Your task to perform on an android device: Open calendar and show me the second week of next month Image 0: 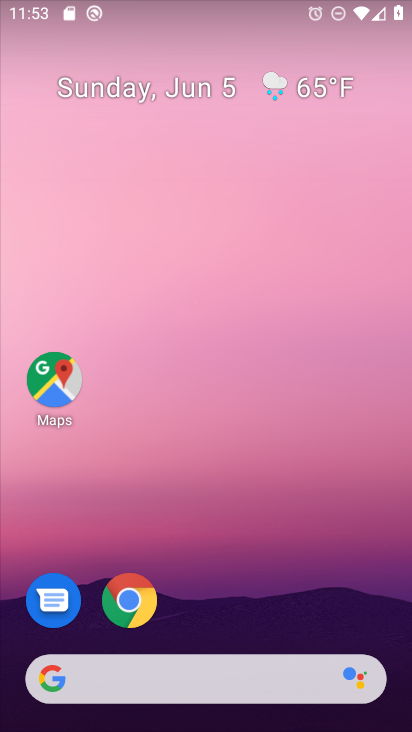
Step 0: drag from (384, 622) to (348, 119)
Your task to perform on an android device: Open calendar and show me the second week of next month Image 1: 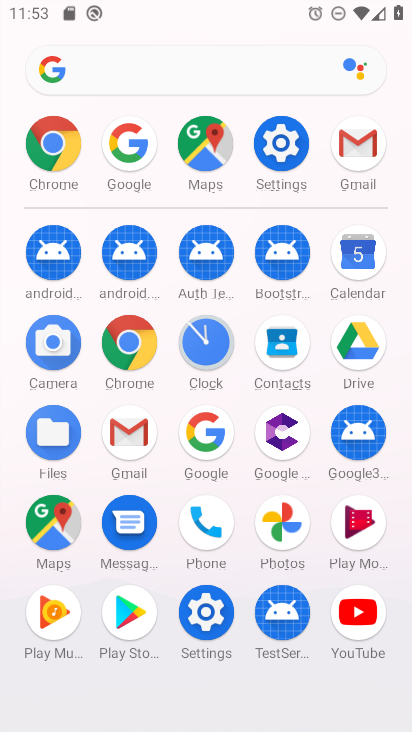
Step 1: click (367, 285)
Your task to perform on an android device: Open calendar and show me the second week of next month Image 2: 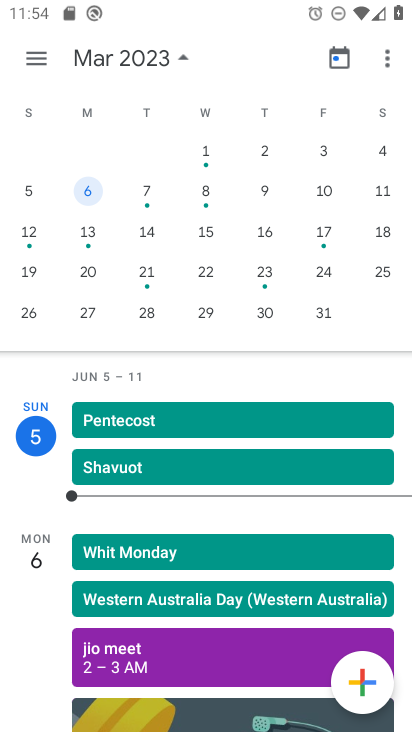
Step 2: drag from (369, 175) to (76, 193)
Your task to perform on an android device: Open calendar and show me the second week of next month Image 3: 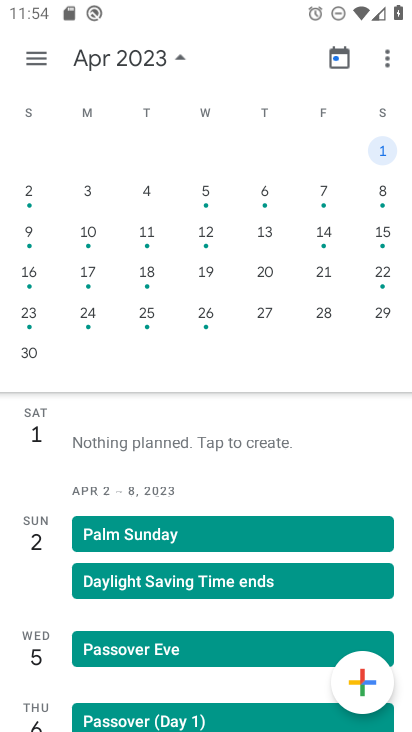
Step 3: click (150, 234)
Your task to perform on an android device: Open calendar and show me the second week of next month Image 4: 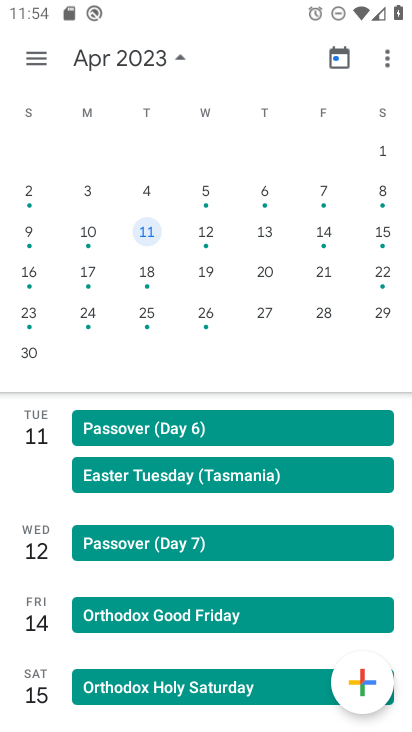
Step 4: task complete